Your task to perform on an android device: Open the phone app and click the voicemail tab. Image 0: 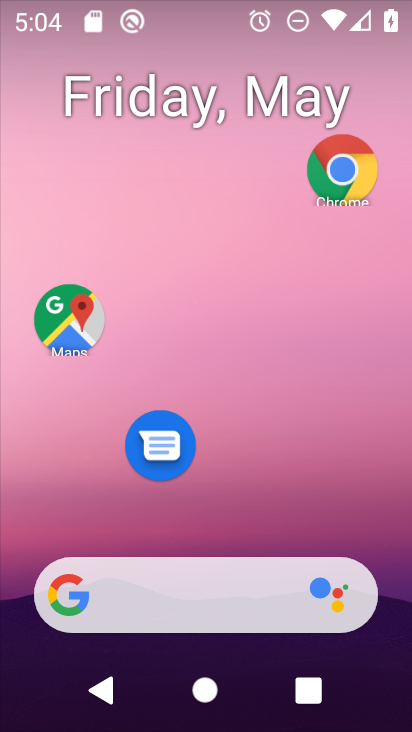
Step 0: drag from (254, 511) to (370, 1)
Your task to perform on an android device: Open the phone app and click the voicemail tab. Image 1: 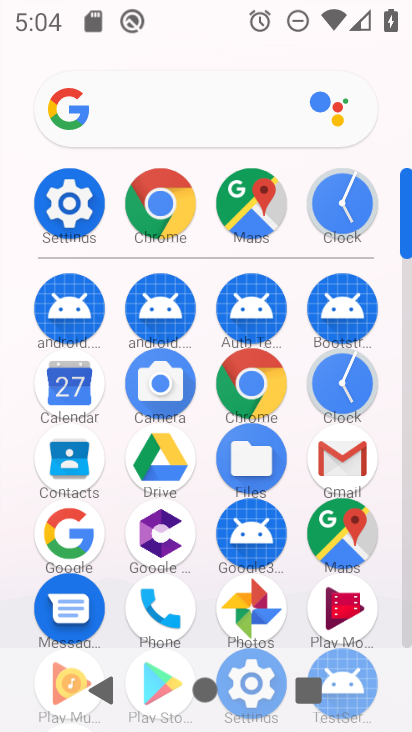
Step 1: click (173, 596)
Your task to perform on an android device: Open the phone app and click the voicemail tab. Image 2: 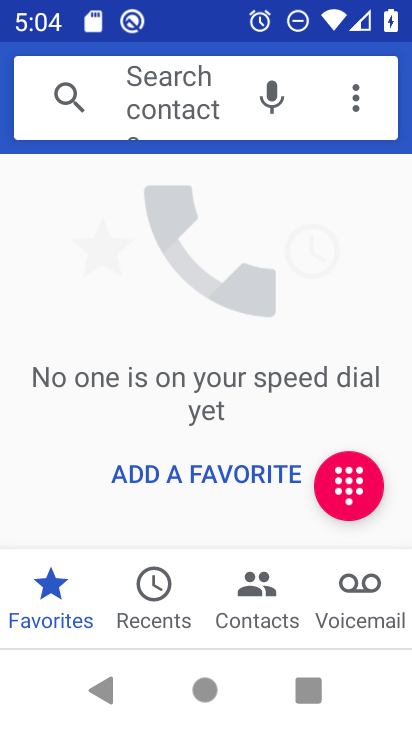
Step 2: click (354, 625)
Your task to perform on an android device: Open the phone app and click the voicemail tab. Image 3: 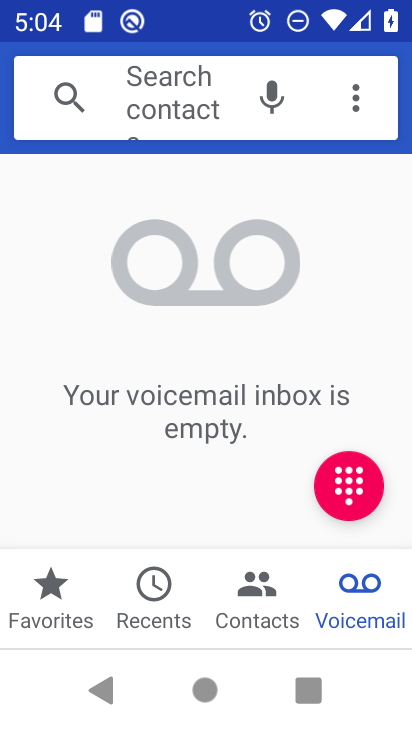
Step 3: task complete